Your task to perform on an android device: turn on showing notifications on the lock screen Image 0: 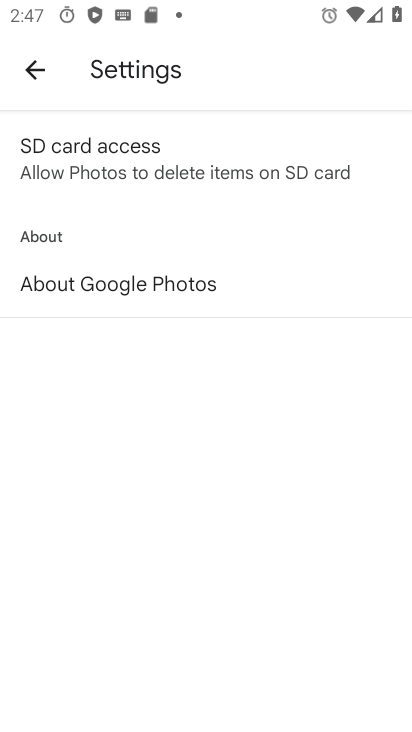
Step 0: press home button
Your task to perform on an android device: turn on showing notifications on the lock screen Image 1: 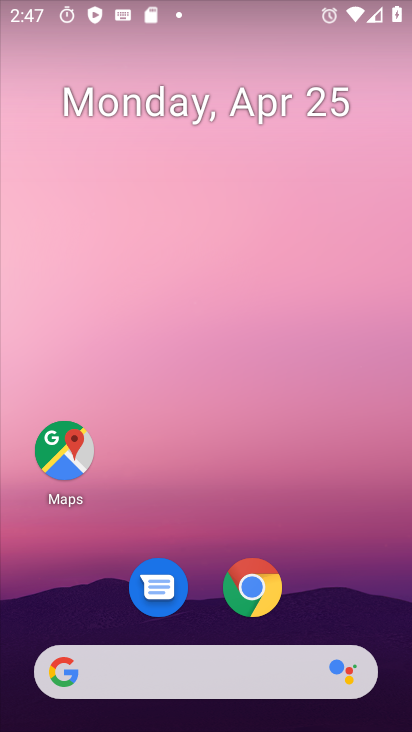
Step 1: drag from (366, 516) to (323, 84)
Your task to perform on an android device: turn on showing notifications on the lock screen Image 2: 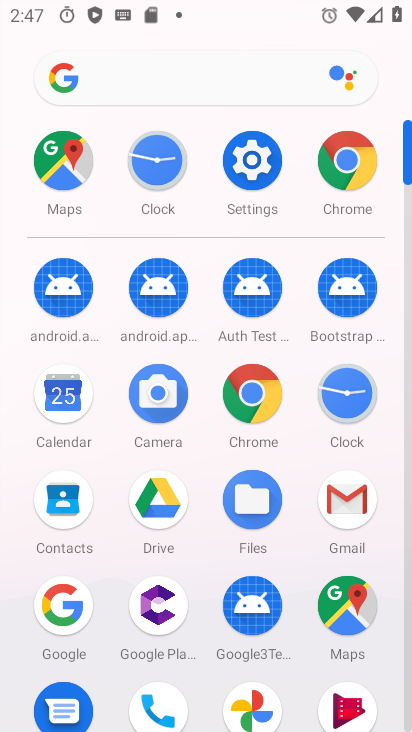
Step 2: click (268, 167)
Your task to perform on an android device: turn on showing notifications on the lock screen Image 3: 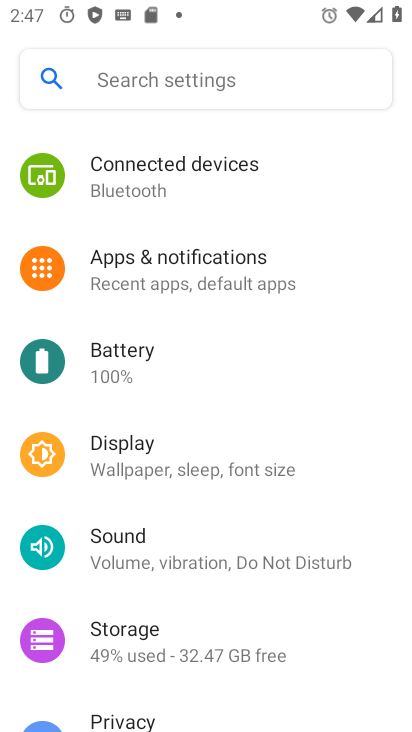
Step 3: click (201, 279)
Your task to perform on an android device: turn on showing notifications on the lock screen Image 4: 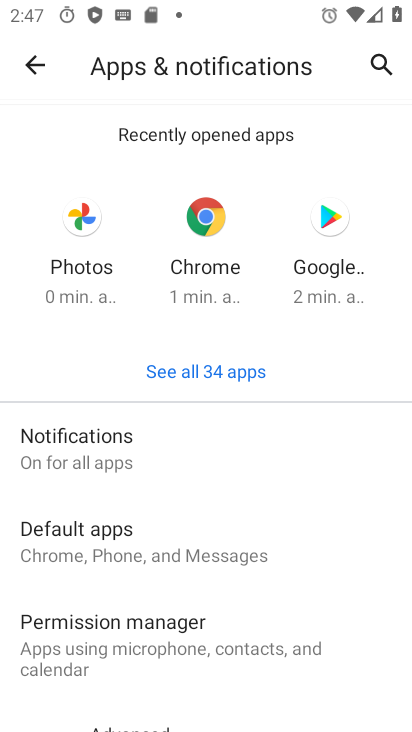
Step 4: click (126, 447)
Your task to perform on an android device: turn on showing notifications on the lock screen Image 5: 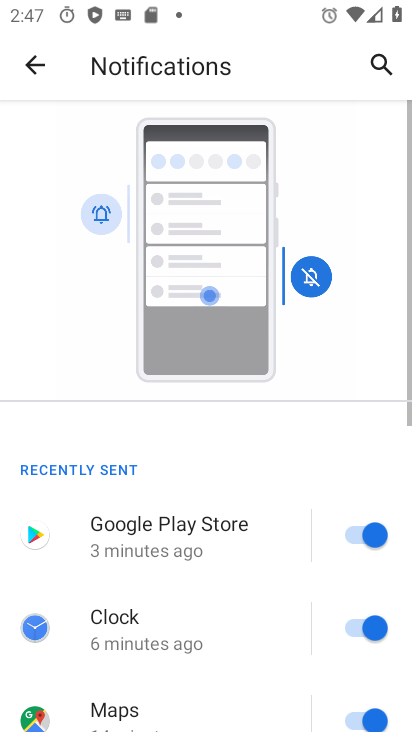
Step 5: drag from (247, 612) to (300, 61)
Your task to perform on an android device: turn on showing notifications on the lock screen Image 6: 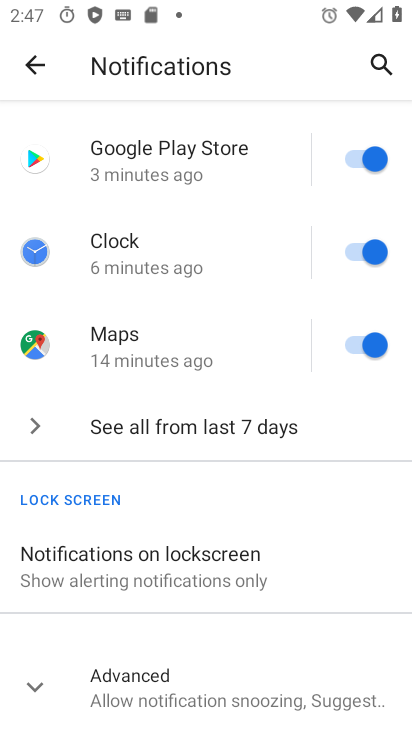
Step 6: click (219, 595)
Your task to perform on an android device: turn on showing notifications on the lock screen Image 7: 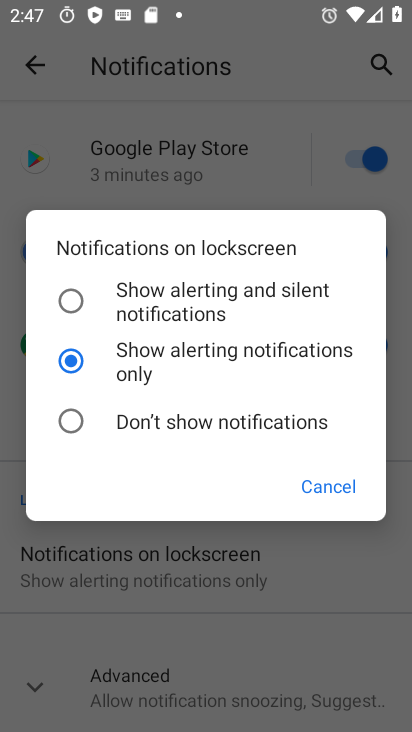
Step 7: task complete